Your task to perform on an android device: delete the emails in spam in the gmail app Image 0: 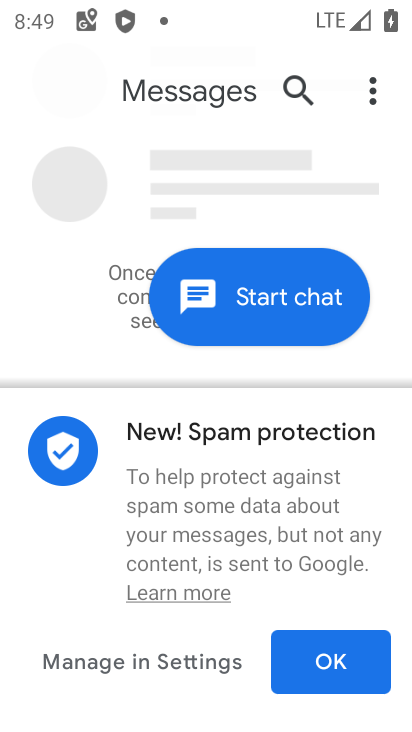
Step 0: press home button
Your task to perform on an android device: delete the emails in spam in the gmail app Image 1: 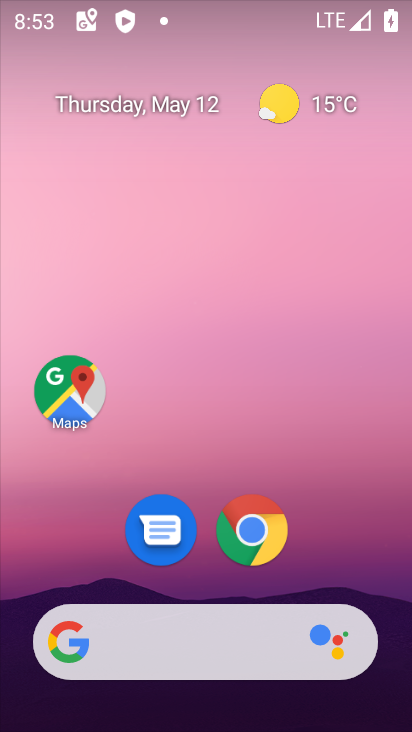
Step 1: drag from (231, 715) to (287, 146)
Your task to perform on an android device: delete the emails in spam in the gmail app Image 2: 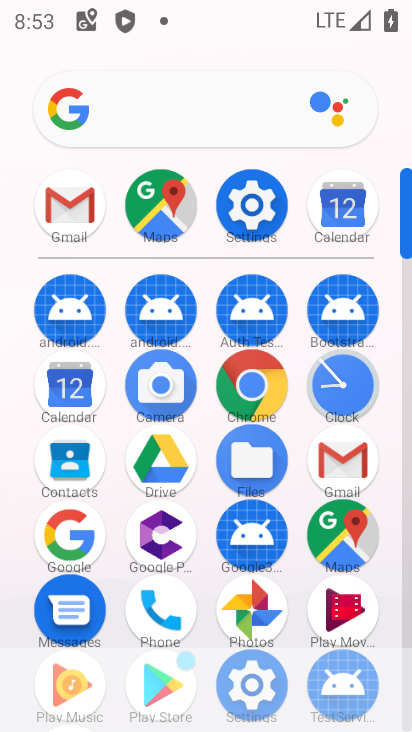
Step 2: click (60, 208)
Your task to perform on an android device: delete the emails in spam in the gmail app Image 3: 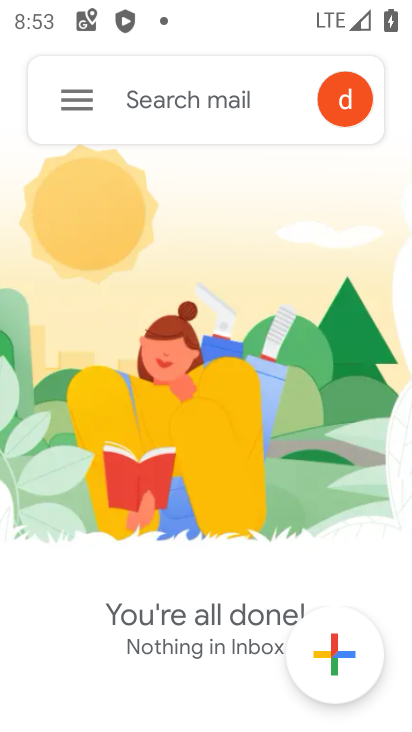
Step 3: task complete